Your task to perform on an android device: turn off priority inbox in the gmail app Image 0: 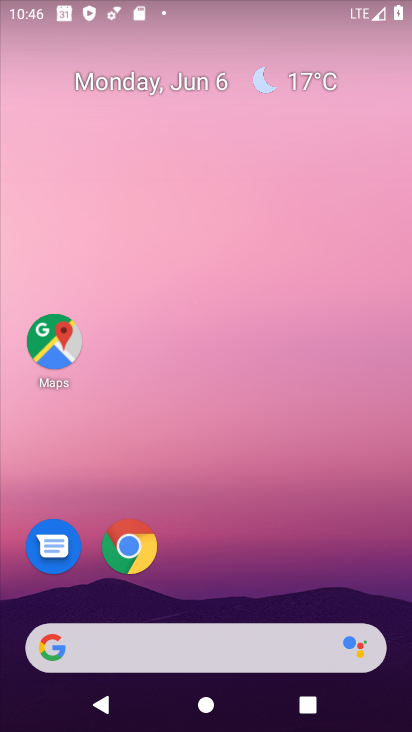
Step 0: drag from (265, 548) to (209, 122)
Your task to perform on an android device: turn off priority inbox in the gmail app Image 1: 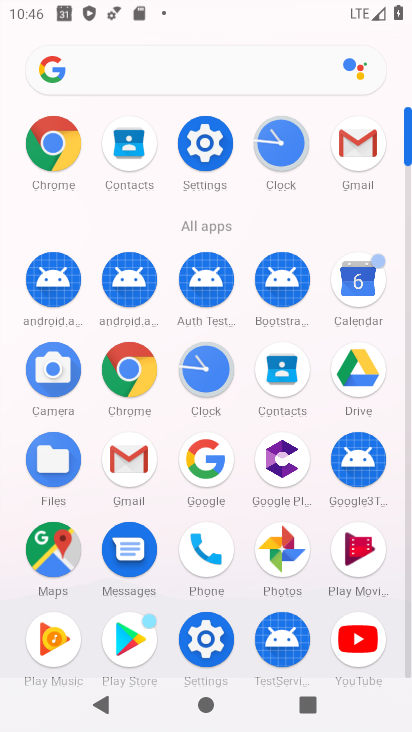
Step 1: click (365, 143)
Your task to perform on an android device: turn off priority inbox in the gmail app Image 2: 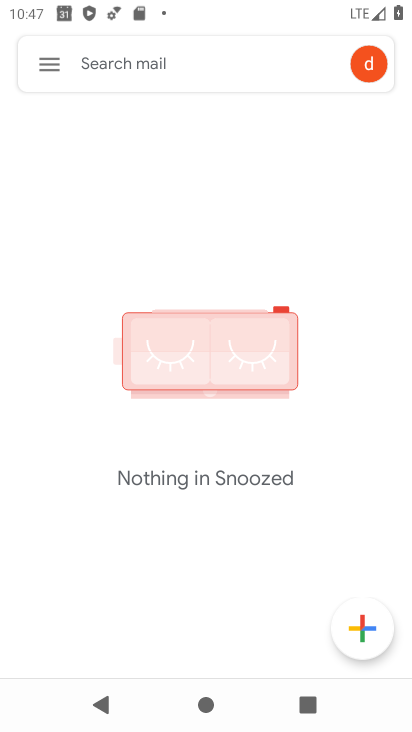
Step 2: click (71, 66)
Your task to perform on an android device: turn off priority inbox in the gmail app Image 3: 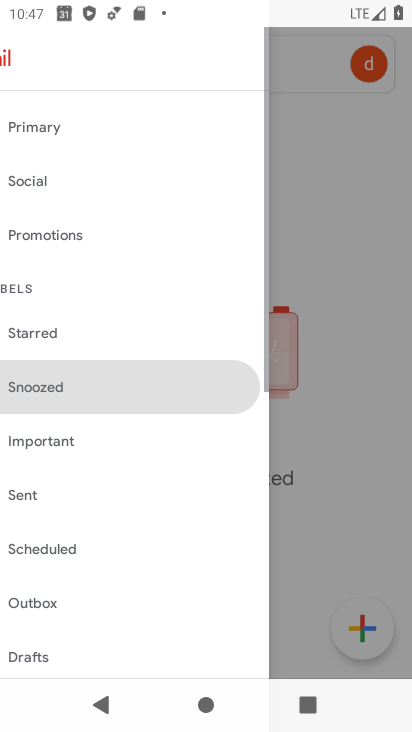
Step 3: click (58, 59)
Your task to perform on an android device: turn off priority inbox in the gmail app Image 4: 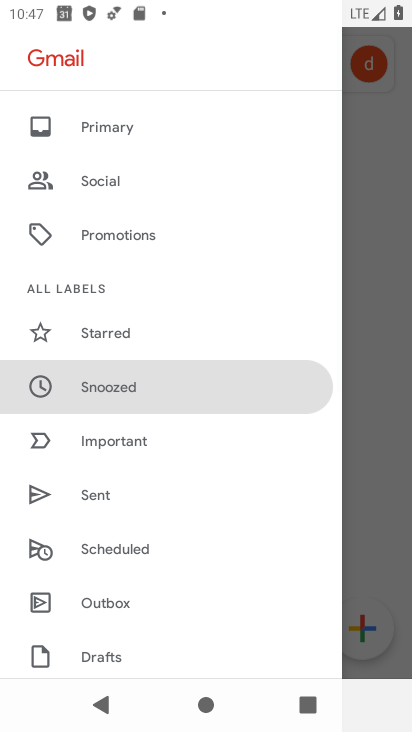
Step 4: drag from (141, 642) to (166, 103)
Your task to perform on an android device: turn off priority inbox in the gmail app Image 5: 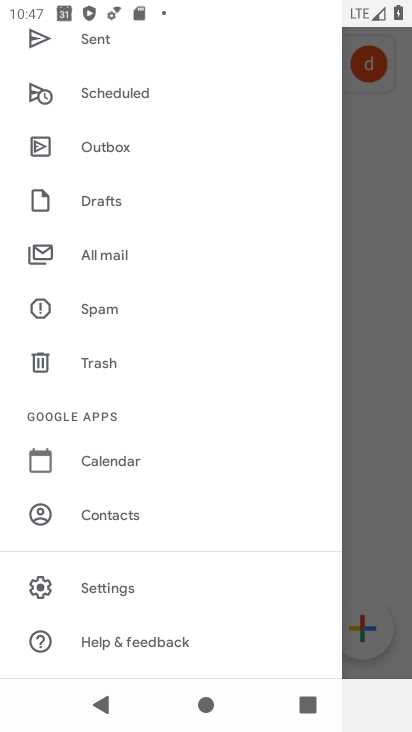
Step 5: click (104, 594)
Your task to perform on an android device: turn off priority inbox in the gmail app Image 6: 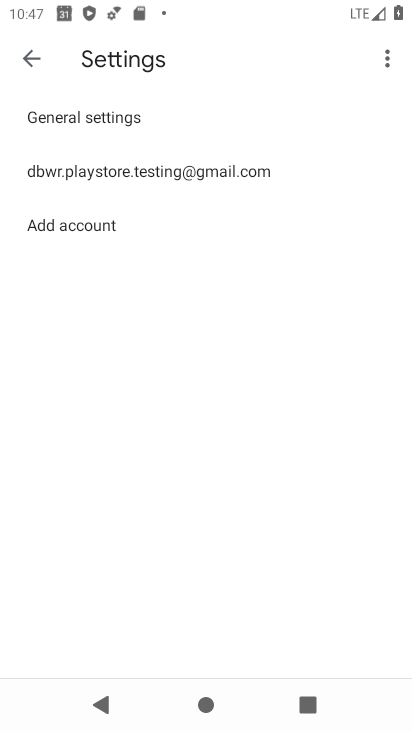
Step 6: click (123, 175)
Your task to perform on an android device: turn off priority inbox in the gmail app Image 7: 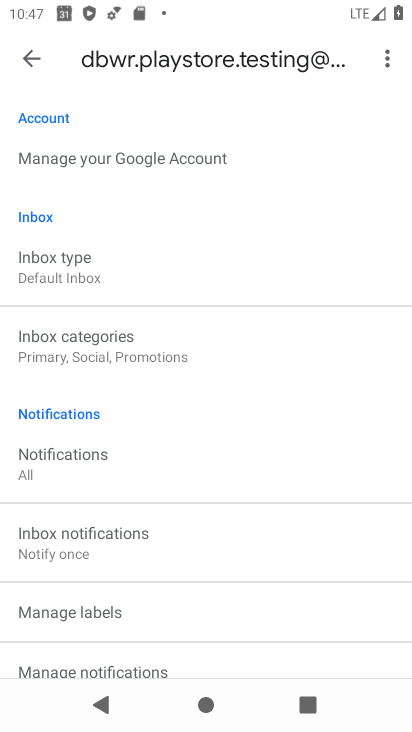
Step 7: click (90, 268)
Your task to perform on an android device: turn off priority inbox in the gmail app Image 8: 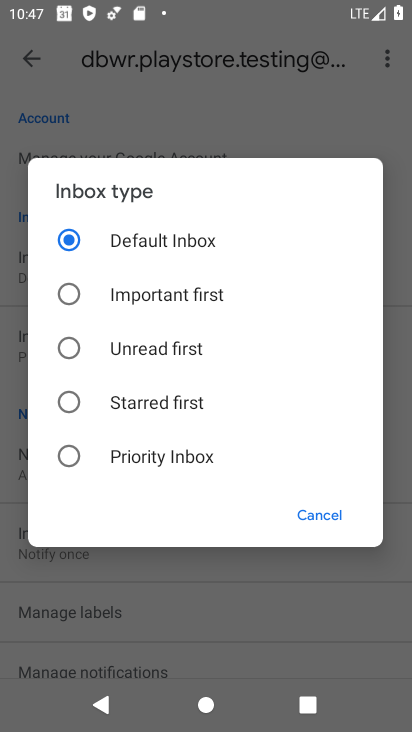
Step 8: task complete